Your task to perform on an android device: Search for a new desk on Ikea Image 0: 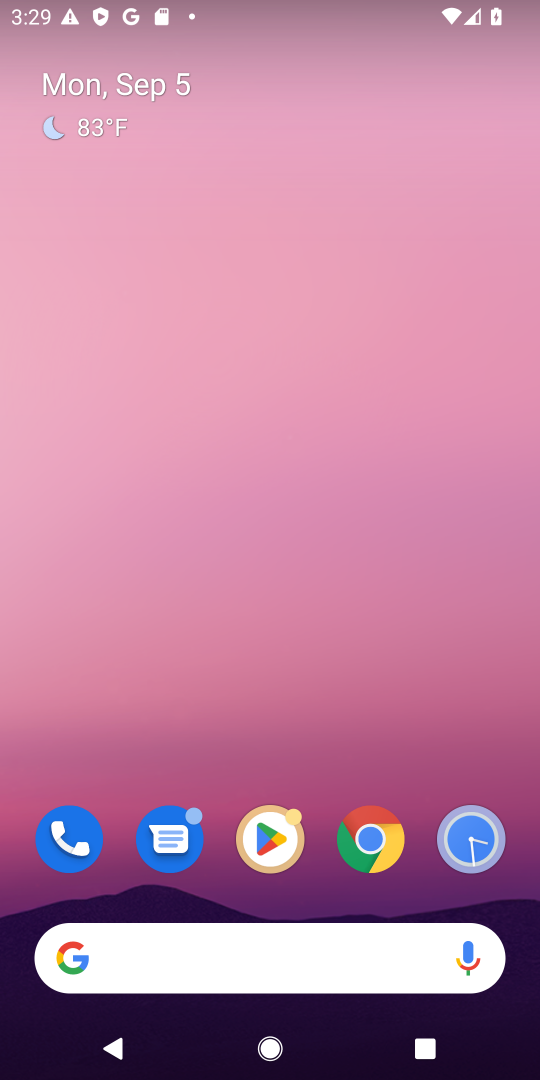
Step 0: click (163, 958)
Your task to perform on an android device: Search for a new desk on Ikea Image 1: 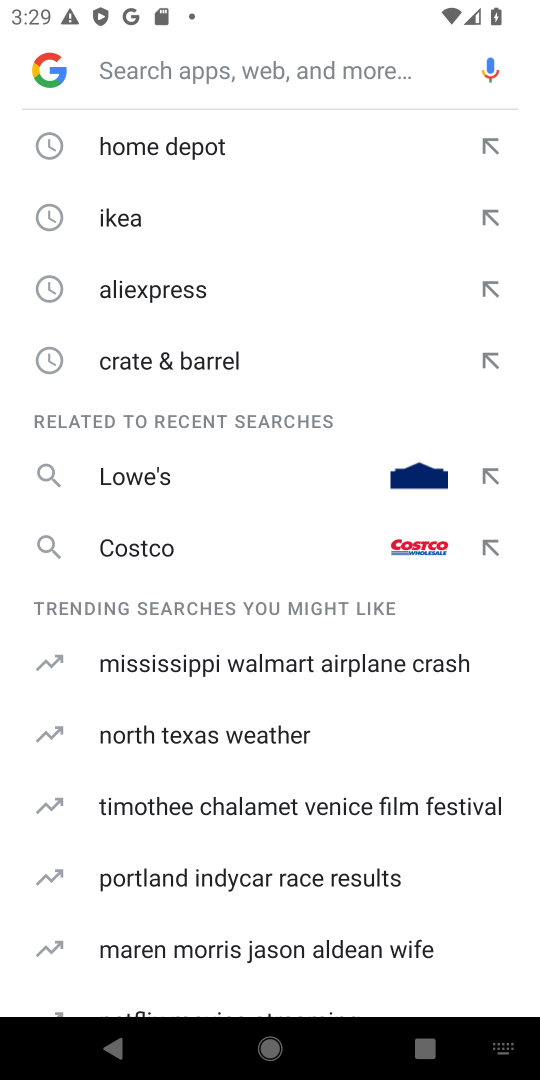
Step 1: click (271, 225)
Your task to perform on an android device: Search for a new desk on Ikea Image 2: 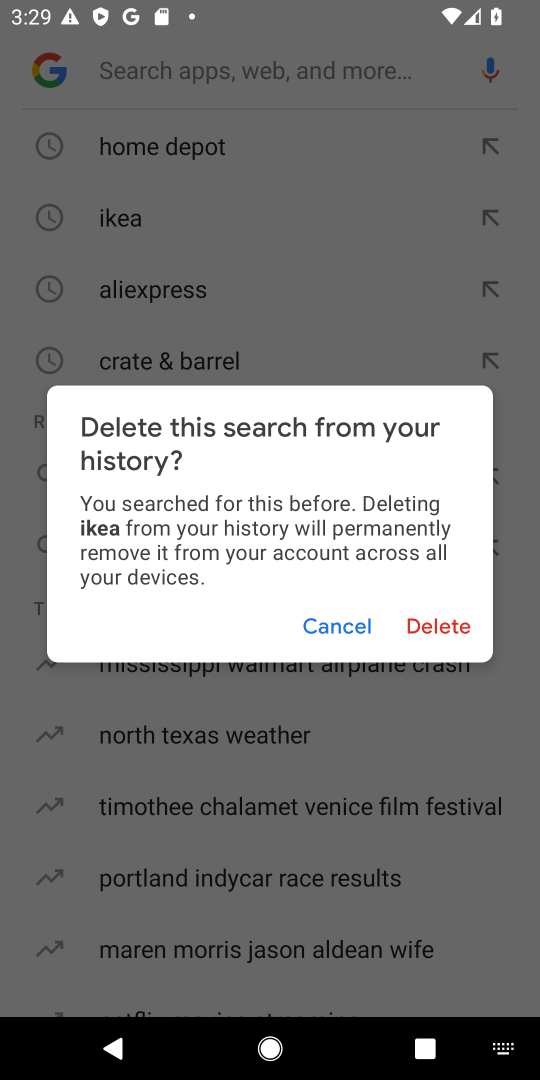
Step 2: click (352, 637)
Your task to perform on an android device: Search for a new desk on Ikea Image 3: 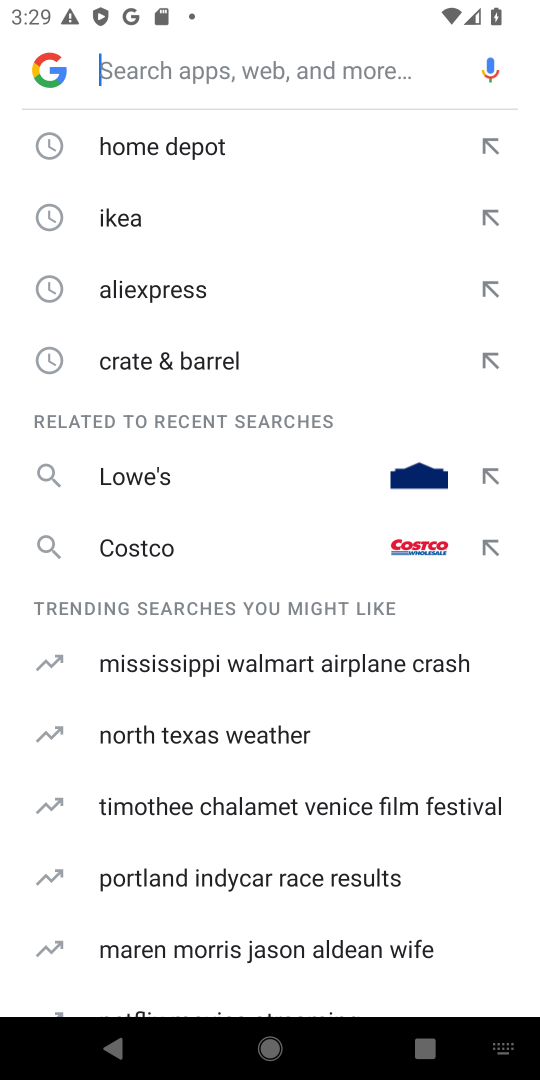
Step 3: click (47, 211)
Your task to perform on an android device: Search for a new desk on Ikea Image 4: 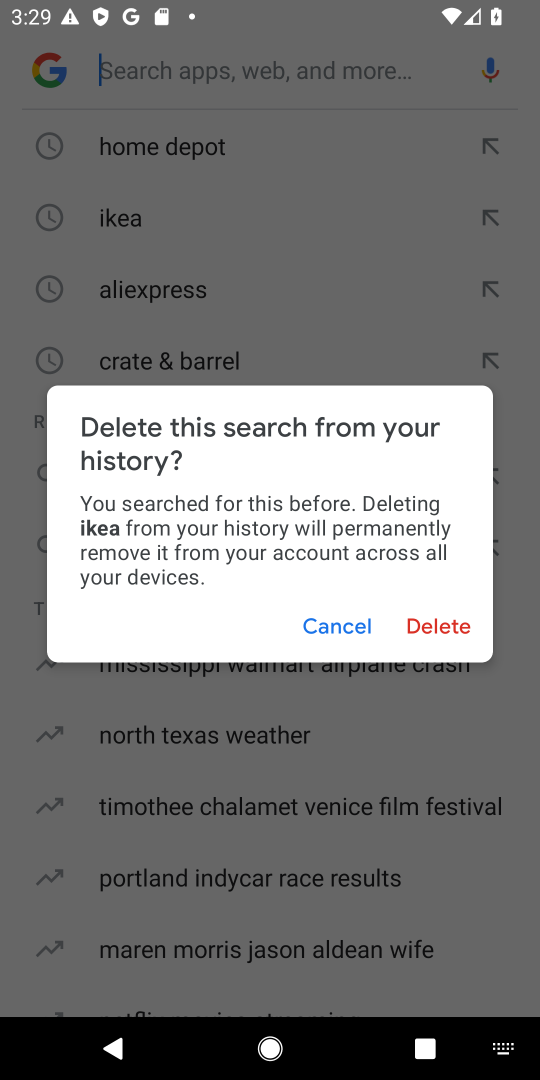
Step 4: click (339, 645)
Your task to perform on an android device: Search for a new desk on Ikea Image 5: 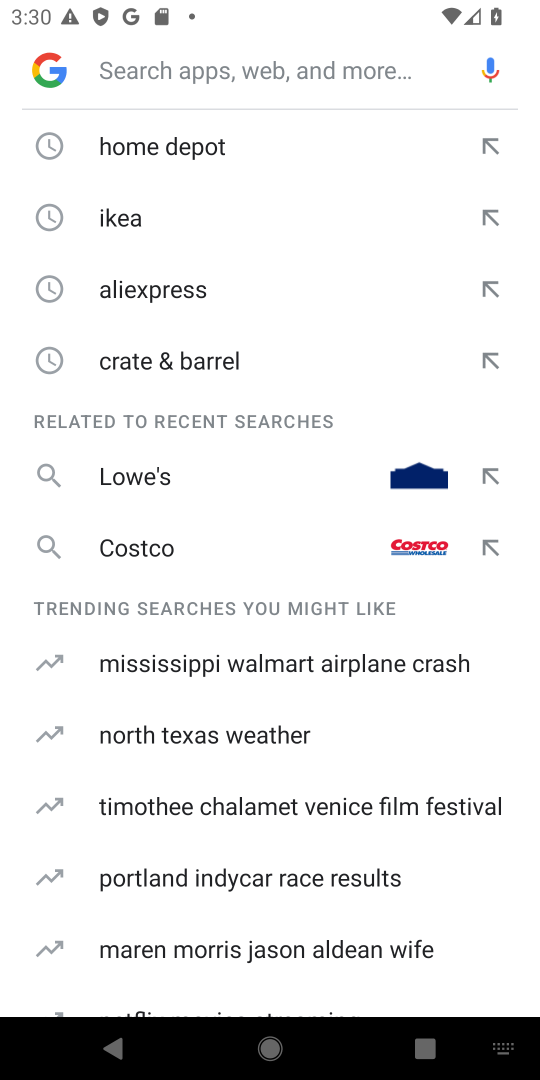
Step 5: click (158, 234)
Your task to perform on an android device: Search for a new desk on Ikea Image 6: 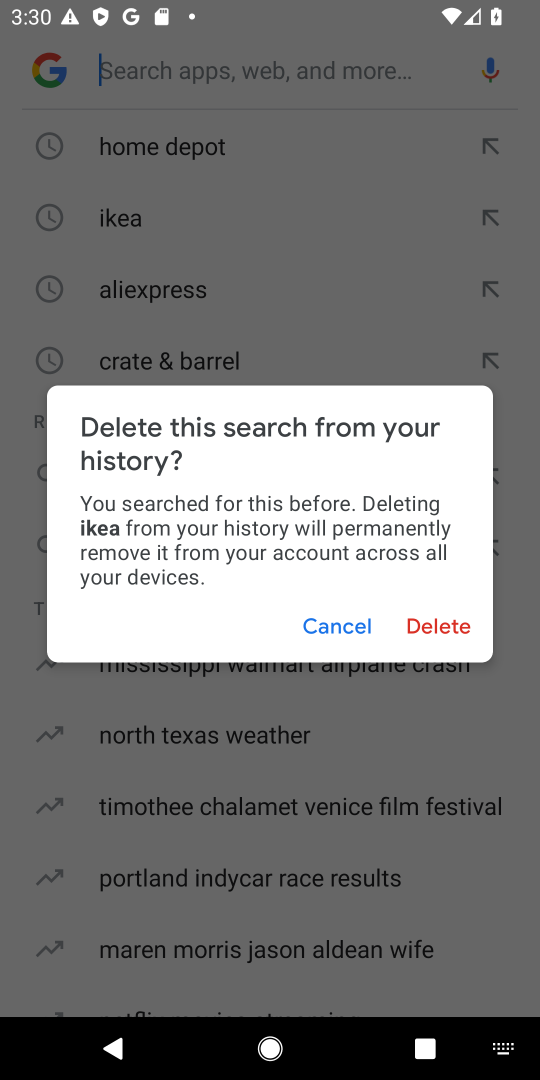
Step 6: click (333, 609)
Your task to perform on an android device: Search for a new desk on Ikea Image 7: 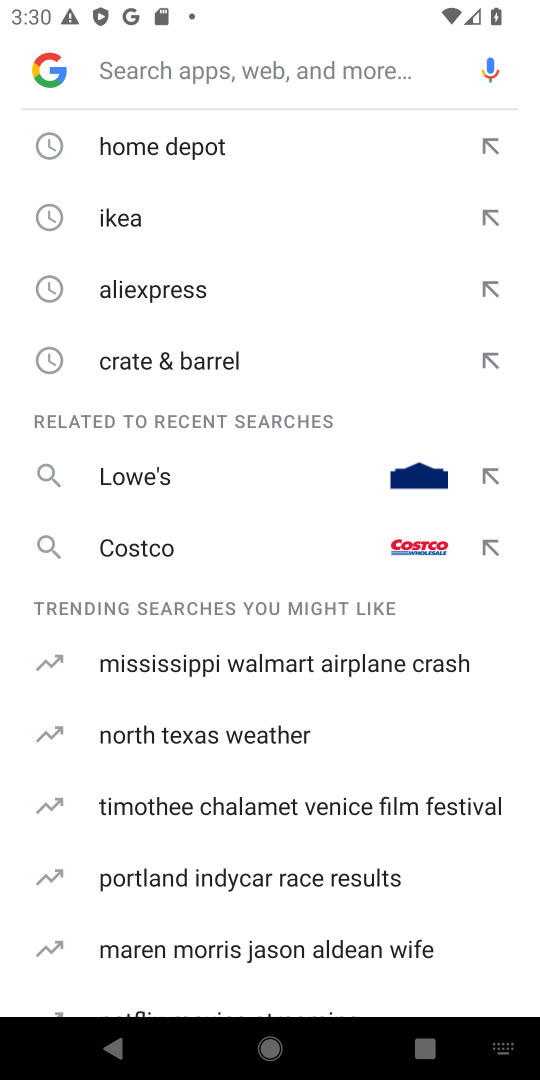
Step 7: click (181, 219)
Your task to perform on an android device: Search for a new desk on Ikea Image 8: 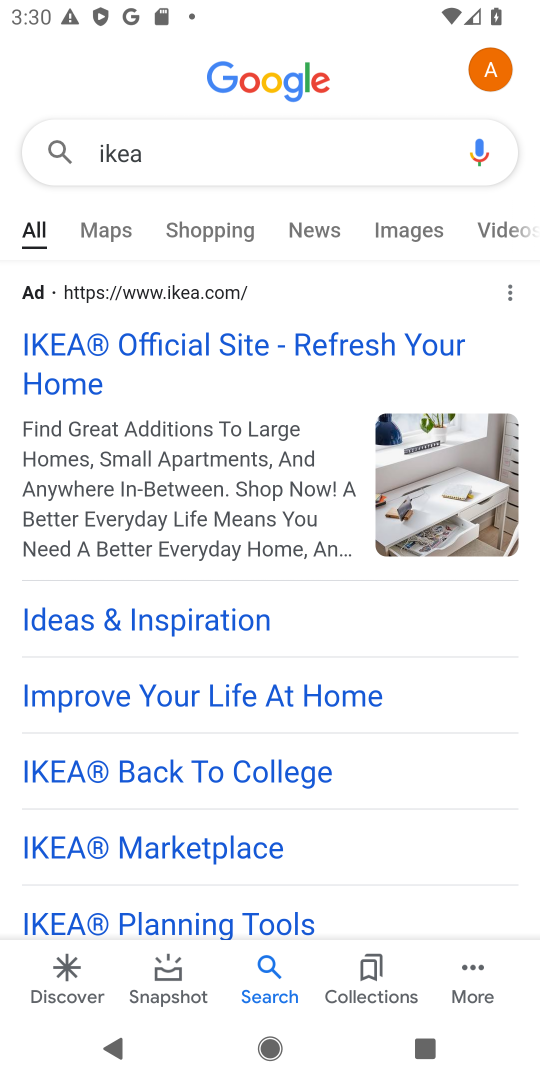
Step 8: drag from (507, 545) to (507, 252)
Your task to perform on an android device: Search for a new desk on Ikea Image 9: 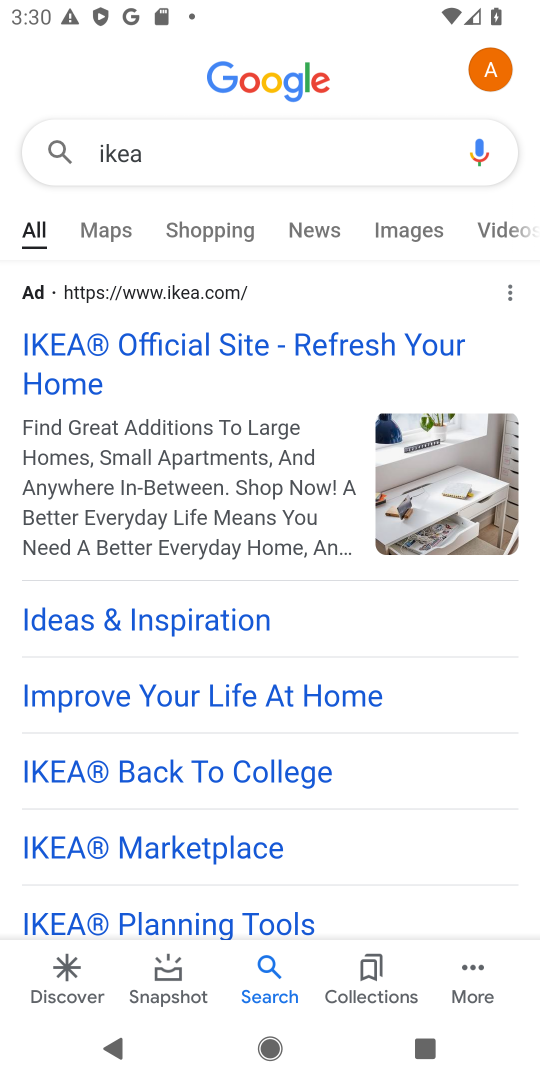
Step 9: drag from (273, 307) to (284, 80)
Your task to perform on an android device: Search for a new desk on Ikea Image 10: 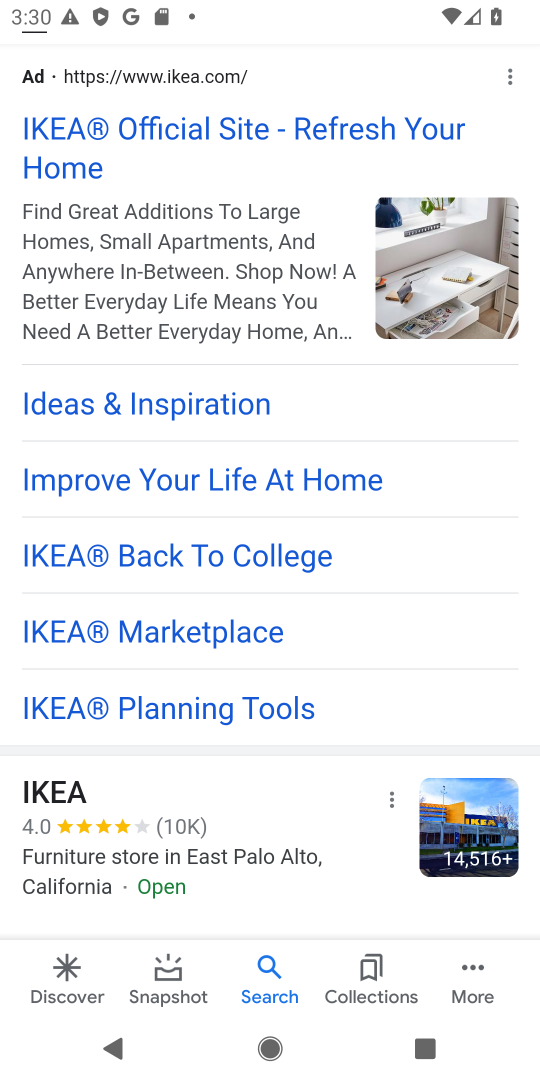
Step 10: drag from (284, 832) to (328, 463)
Your task to perform on an android device: Search for a new desk on Ikea Image 11: 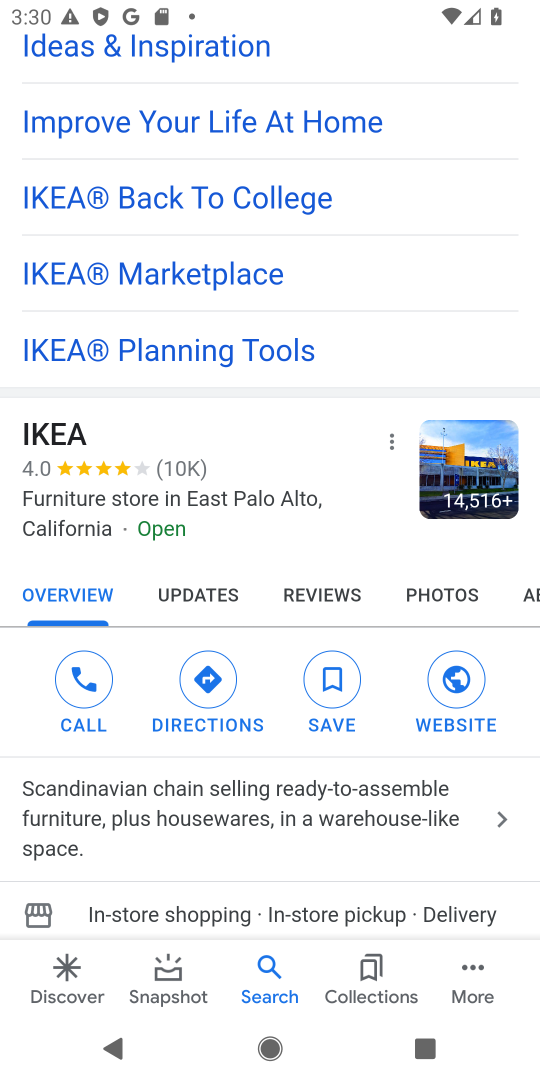
Step 11: drag from (242, 884) to (289, 412)
Your task to perform on an android device: Search for a new desk on Ikea Image 12: 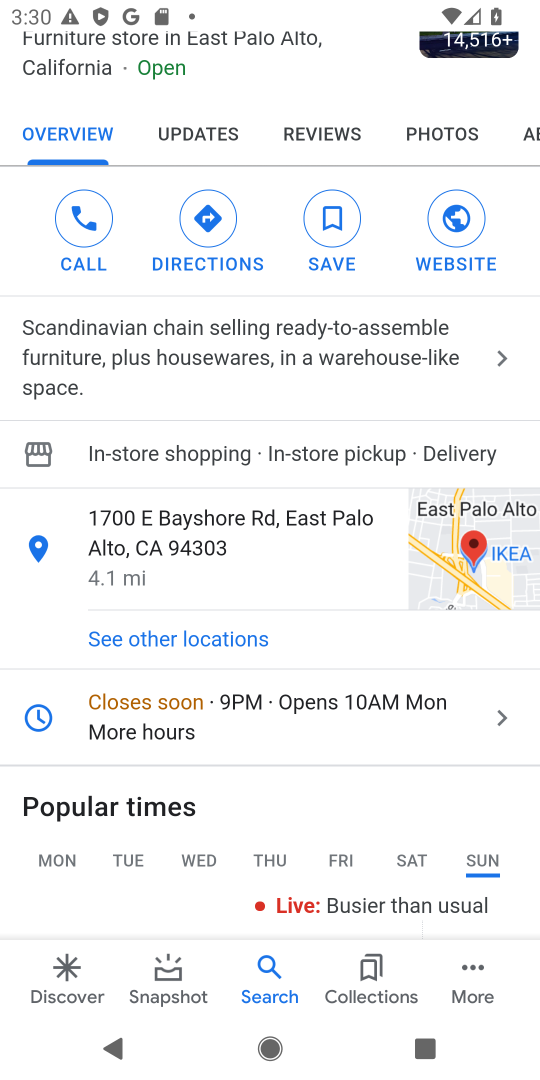
Step 12: drag from (240, 909) to (295, 554)
Your task to perform on an android device: Search for a new desk on Ikea Image 13: 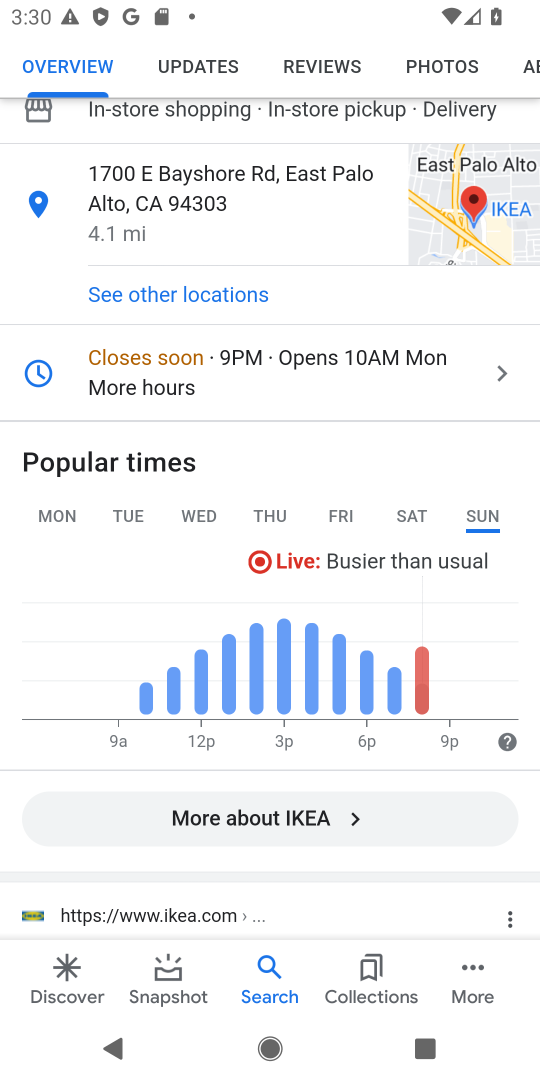
Step 13: click (317, 597)
Your task to perform on an android device: Search for a new desk on Ikea Image 14: 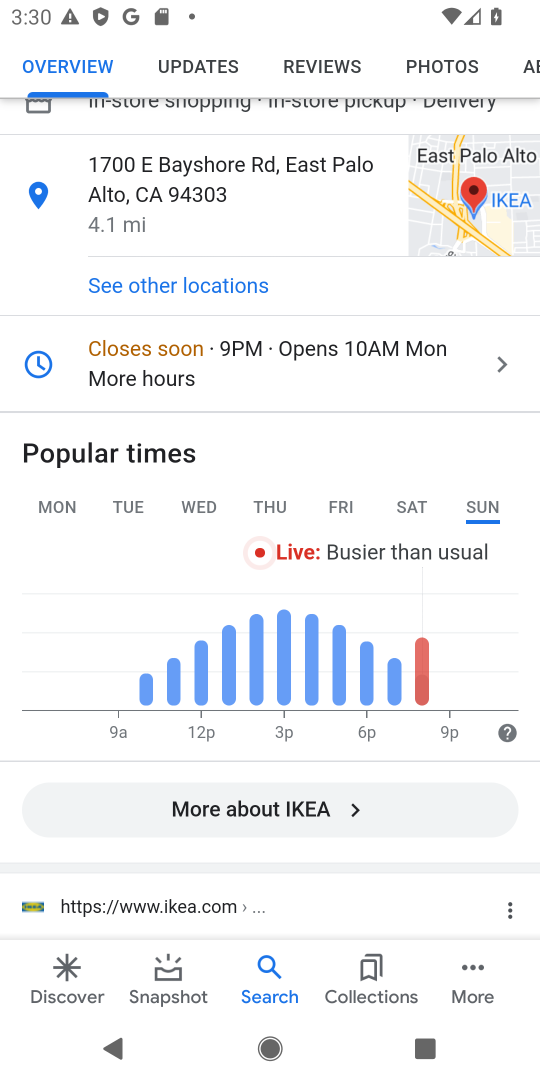
Step 14: drag from (90, 846) to (113, 564)
Your task to perform on an android device: Search for a new desk on Ikea Image 15: 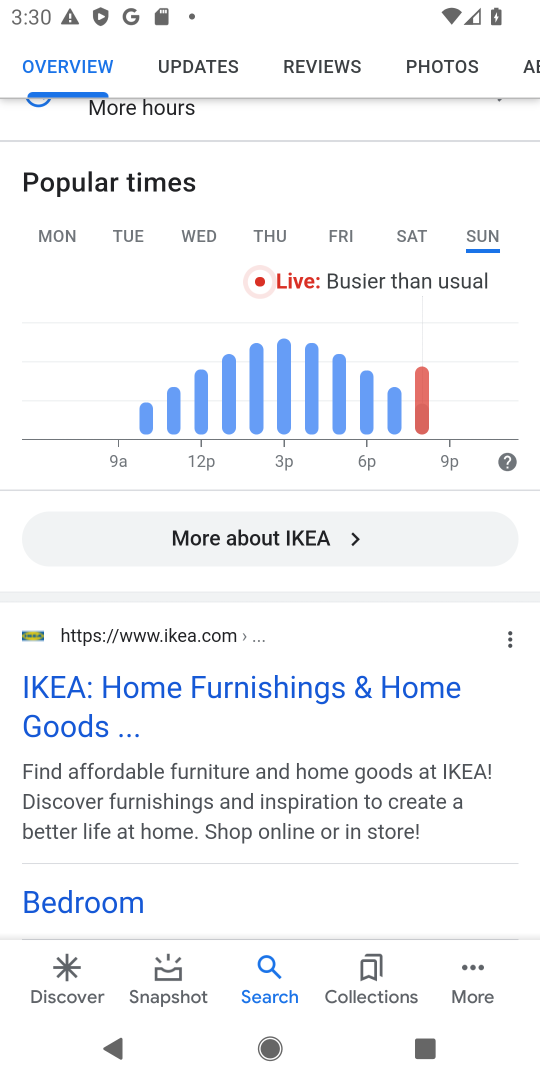
Step 15: click (159, 774)
Your task to perform on an android device: Search for a new desk on Ikea Image 16: 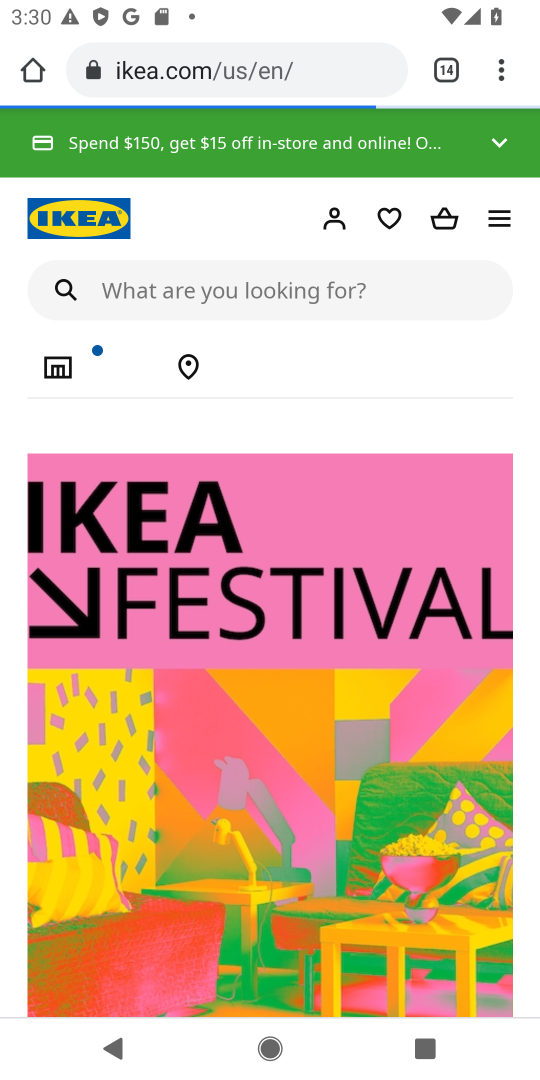
Step 16: click (193, 284)
Your task to perform on an android device: Search for a new desk on Ikea Image 17: 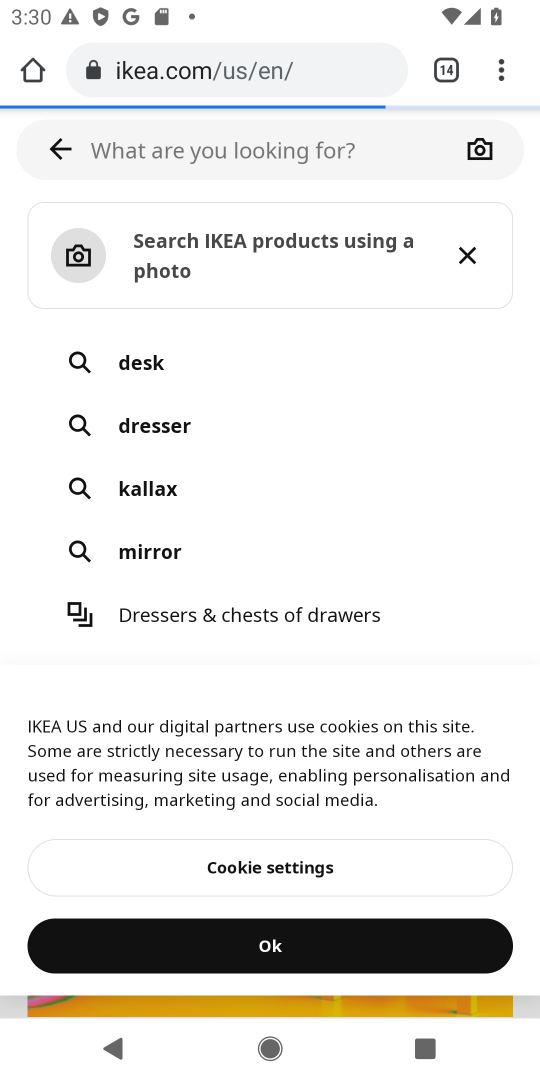
Step 17: click (123, 142)
Your task to perform on an android device: Search for a new desk on Ikea Image 18: 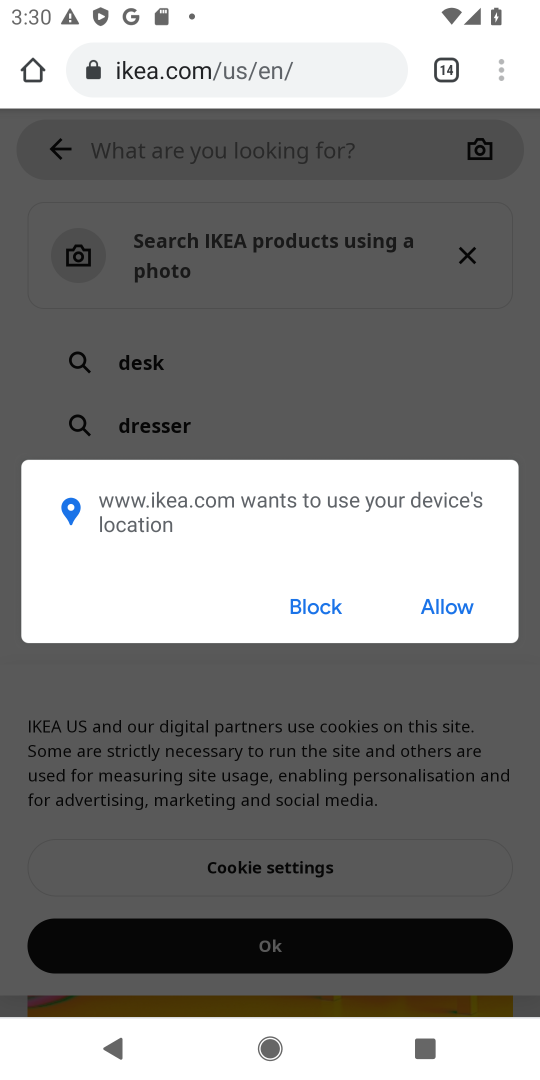
Step 18: click (321, 600)
Your task to perform on an android device: Search for a new desk on Ikea Image 19: 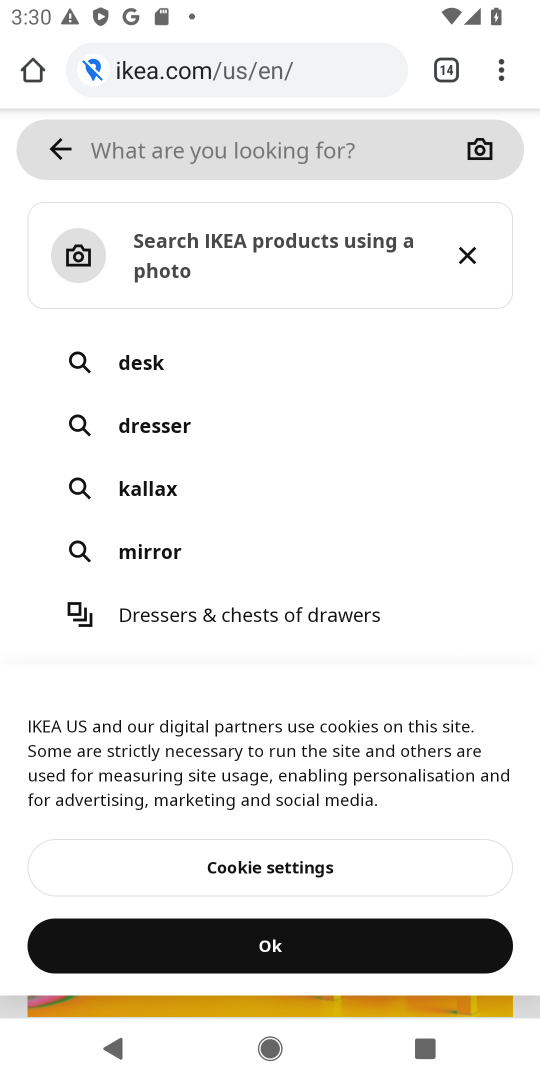
Step 19: click (124, 145)
Your task to perform on an android device: Search for a new desk on Ikea Image 20: 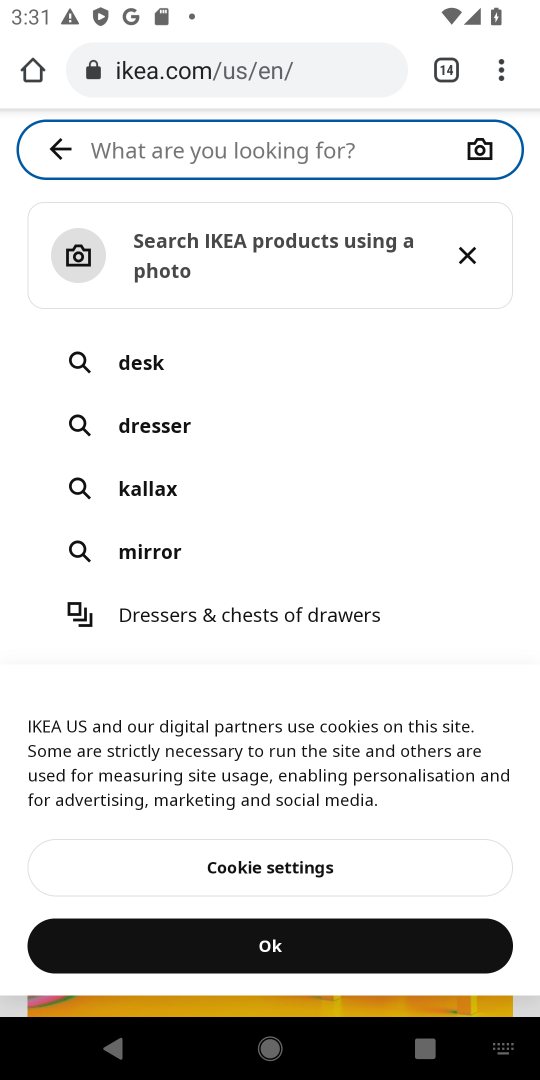
Step 20: type "new desk"
Your task to perform on an android device: Search for a new desk on Ikea Image 21: 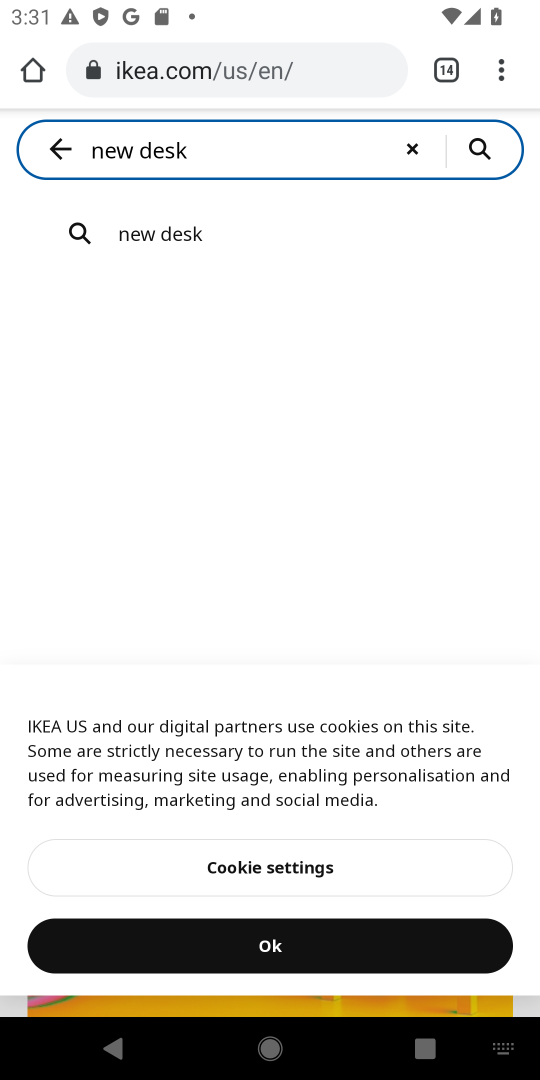
Step 21: press enter
Your task to perform on an android device: Search for a new desk on Ikea Image 22: 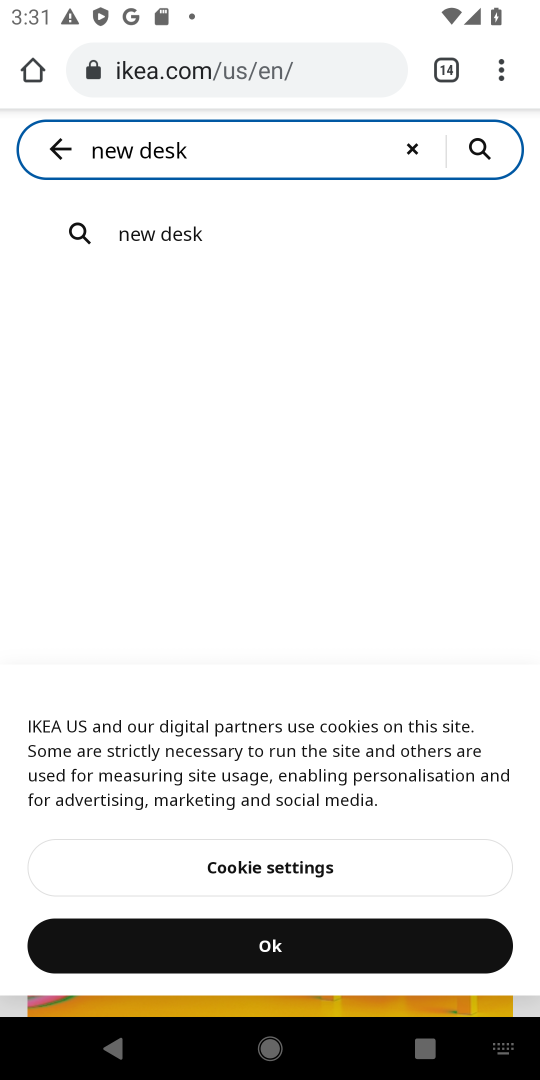
Step 22: press enter
Your task to perform on an android device: Search for a new desk on Ikea Image 23: 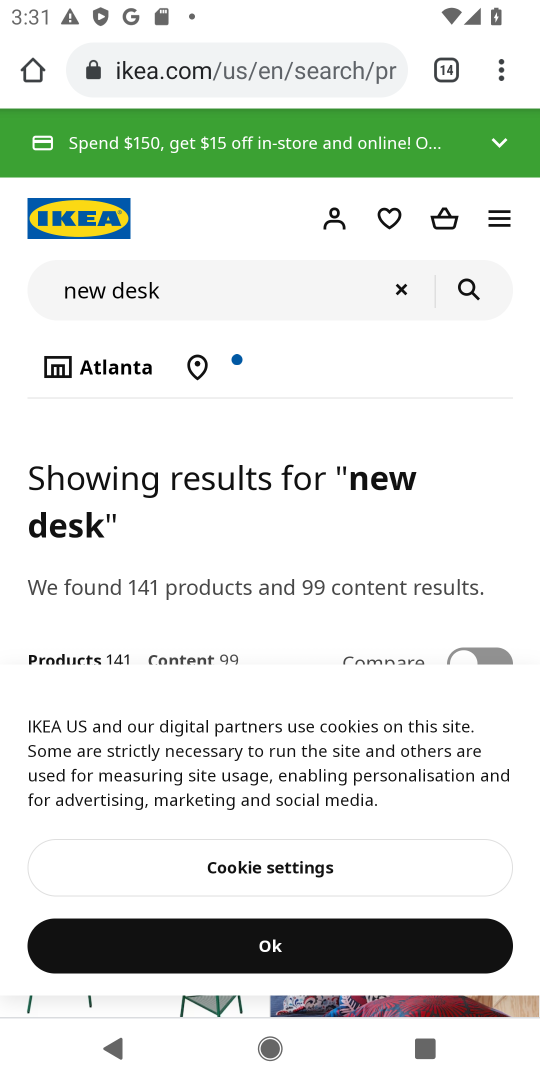
Step 23: click (302, 938)
Your task to perform on an android device: Search for a new desk on Ikea Image 24: 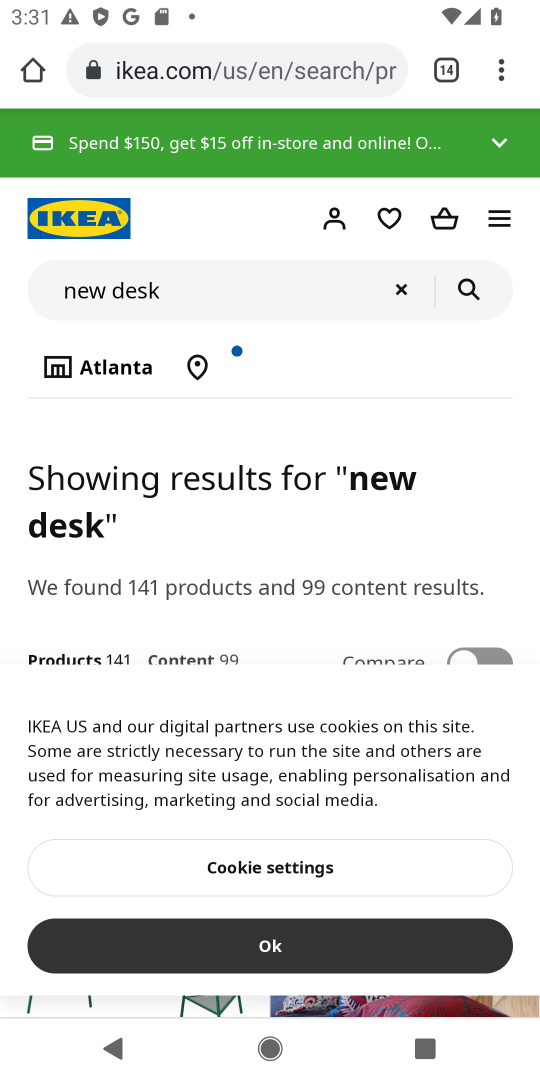
Step 24: click (277, 943)
Your task to perform on an android device: Search for a new desk on Ikea Image 25: 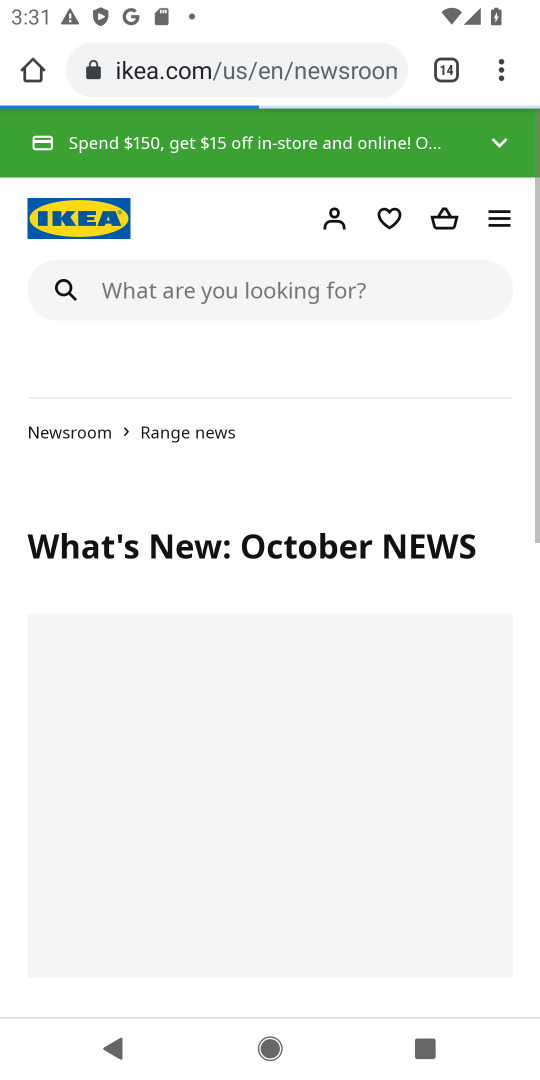
Step 25: drag from (270, 711) to (263, 566)
Your task to perform on an android device: Search for a new desk on Ikea Image 26: 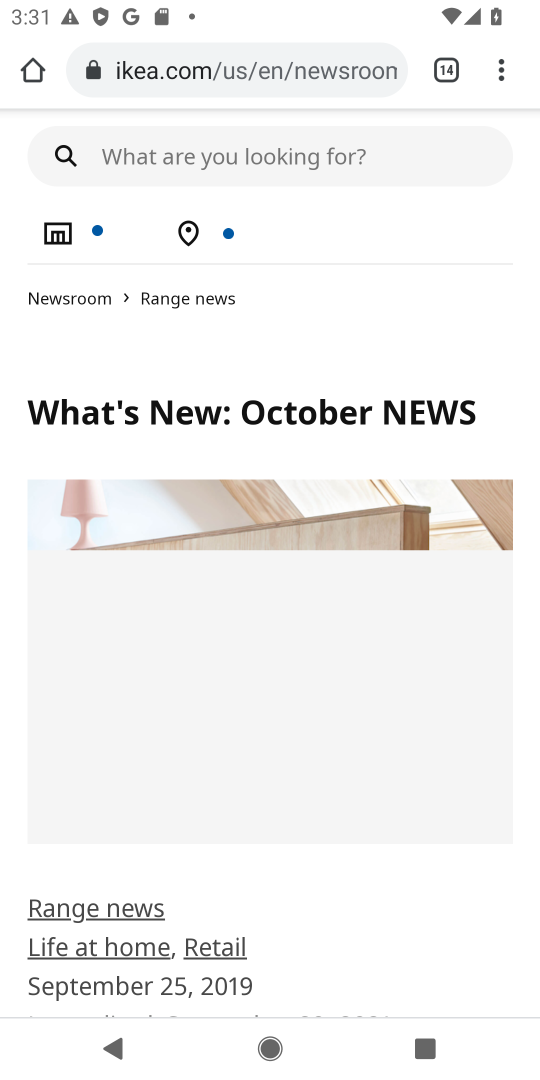
Step 26: press back button
Your task to perform on an android device: Search for a new desk on Ikea Image 27: 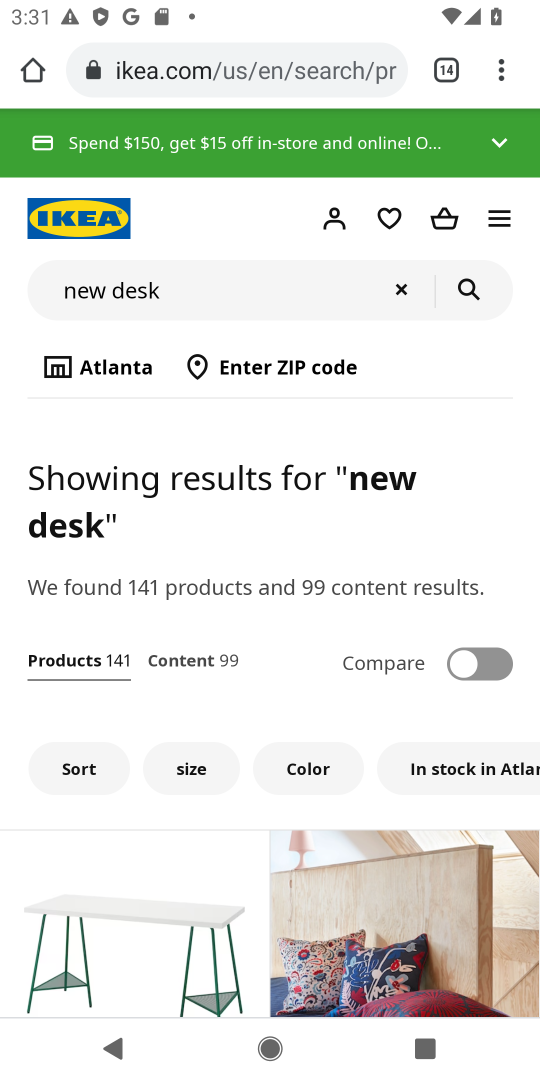
Step 27: drag from (283, 525) to (296, 347)
Your task to perform on an android device: Search for a new desk on Ikea Image 28: 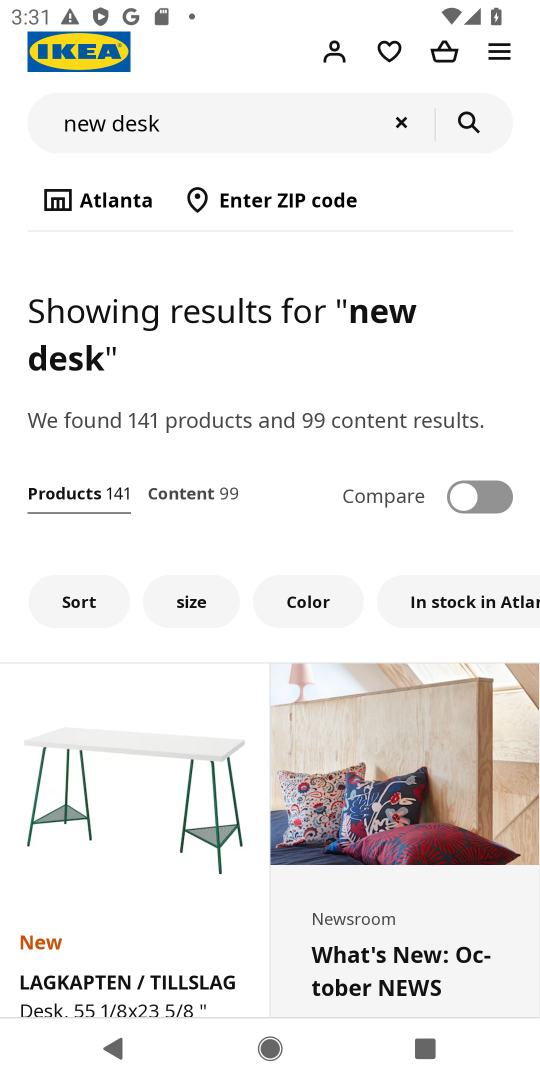
Step 28: drag from (321, 543) to (351, 140)
Your task to perform on an android device: Search for a new desk on Ikea Image 29: 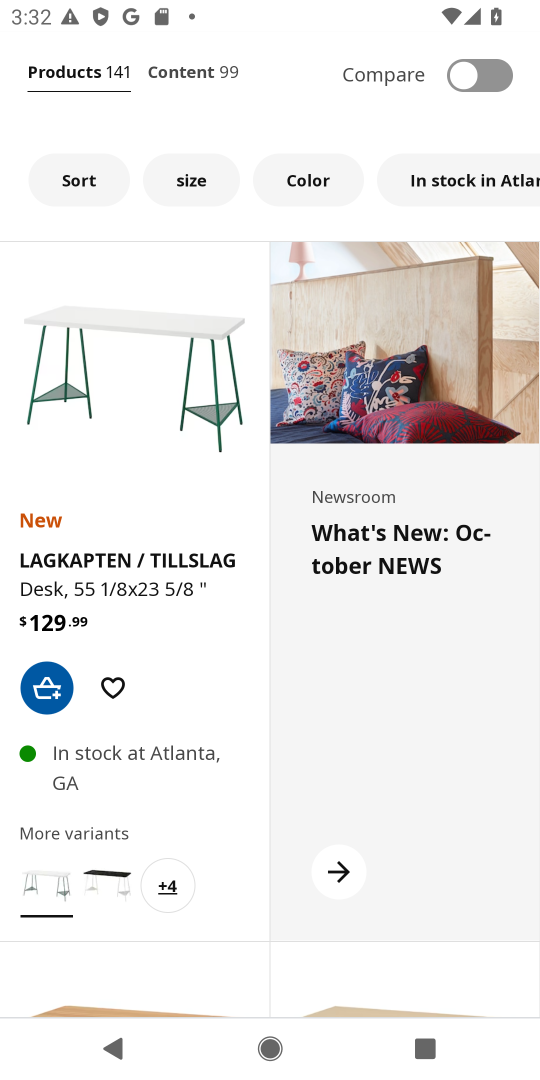
Step 29: drag from (268, 195) to (285, 114)
Your task to perform on an android device: Search for a new desk on Ikea Image 30: 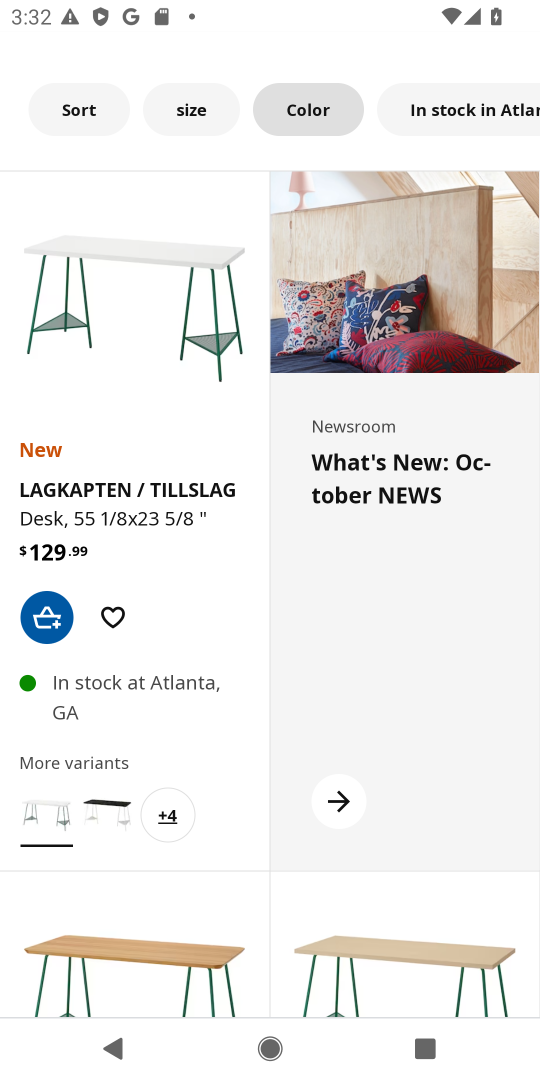
Step 30: click (266, 134)
Your task to perform on an android device: Search for a new desk on Ikea Image 31: 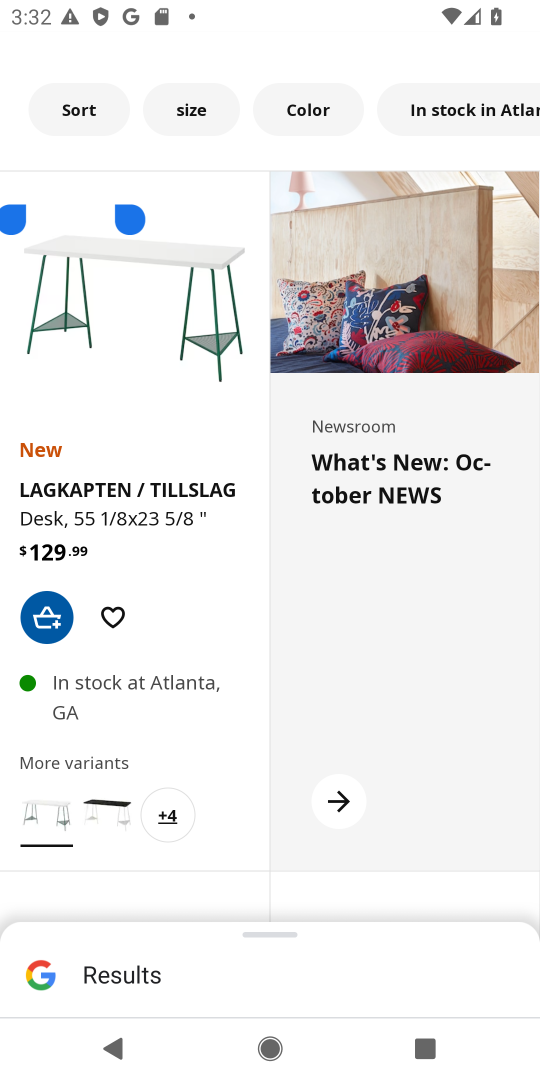
Step 31: task complete